Your task to perform on an android device: Open Google Chrome Image 0: 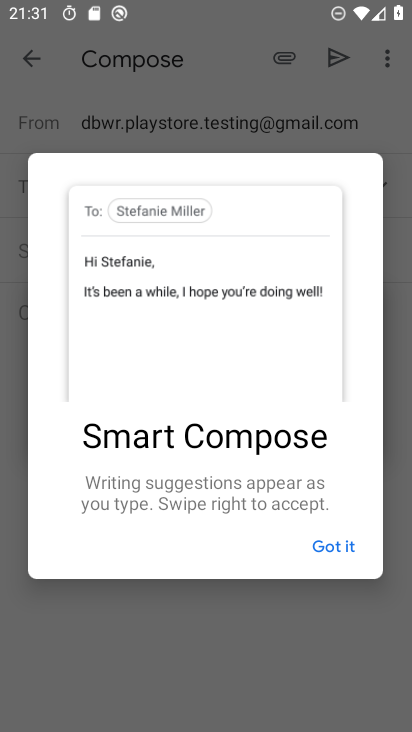
Step 0: press home button
Your task to perform on an android device: Open Google Chrome Image 1: 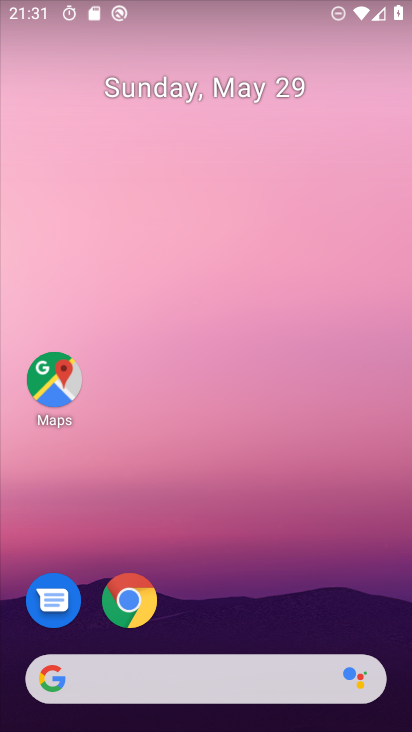
Step 1: drag from (344, 594) to (309, 178)
Your task to perform on an android device: Open Google Chrome Image 2: 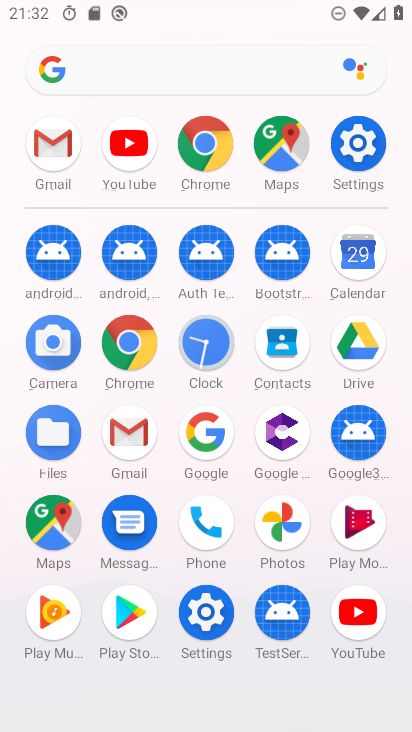
Step 2: click (147, 361)
Your task to perform on an android device: Open Google Chrome Image 3: 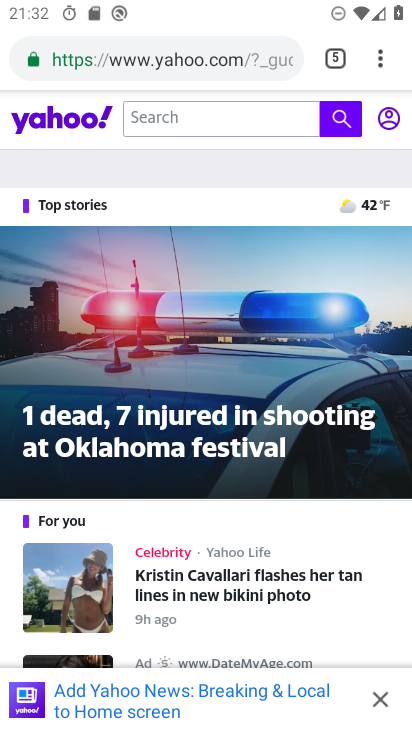
Step 3: click (368, 706)
Your task to perform on an android device: Open Google Chrome Image 4: 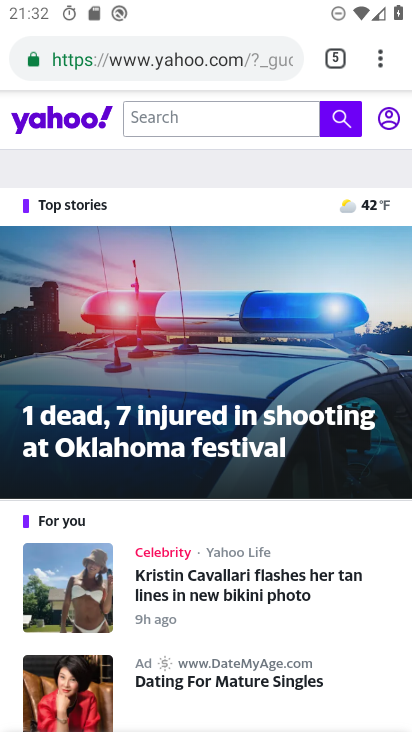
Step 4: task complete